Your task to perform on an android device: turn off improve location accuracy Image 0: 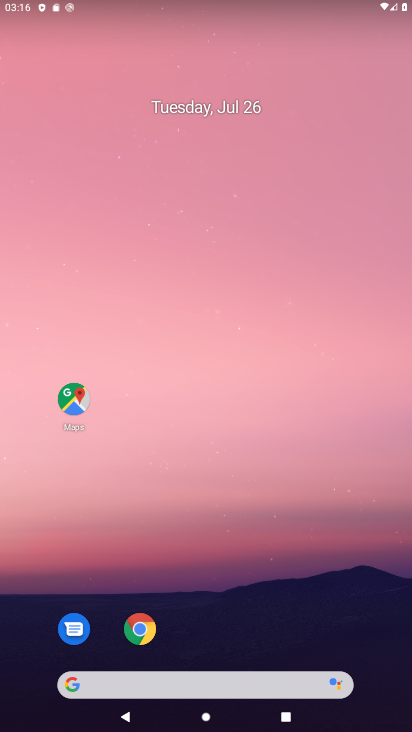
Step 0: drag from (257, 589) to (244, 31)
Your task to perform on an android device: turn off improve location accuracy Image 1: 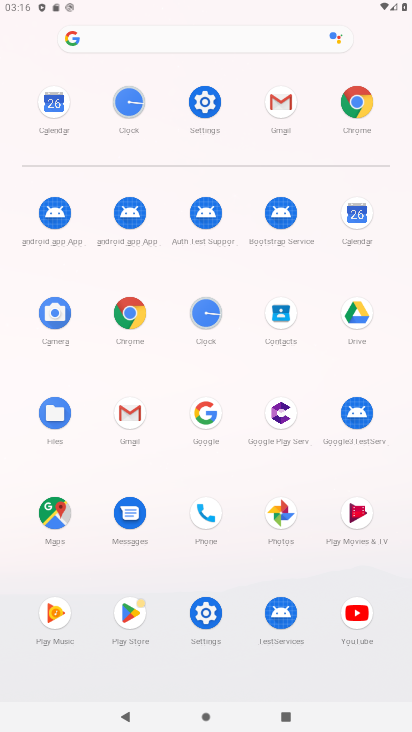
Step 1: click (54, 515)
Your task to perform on an android device: turn off improve location accuracy Image 2: 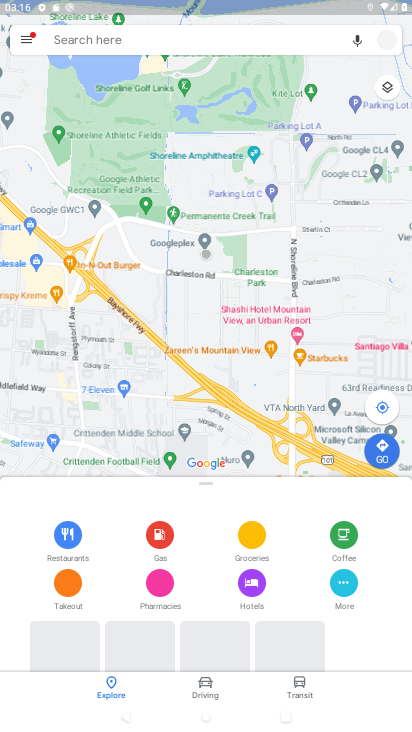
Step 2: click (30, 40)
Your task to perform on an android device: turn off improve location accuracy Image 3: 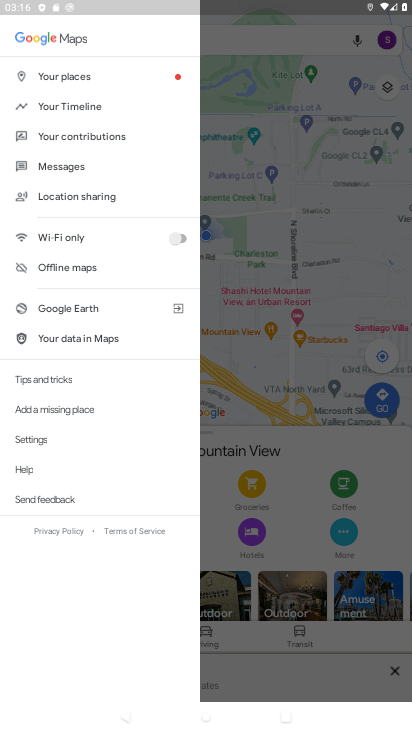
Step 3: press home button
Your task to perform on an android device: turn off improve location accuracy Image 4: 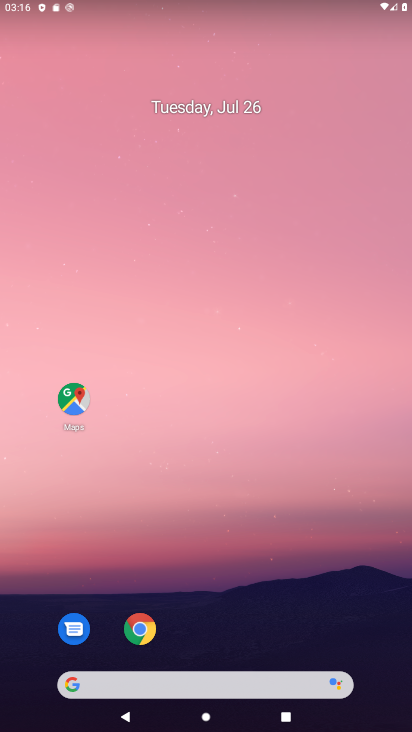
Step 4: drag from (307, 639) to (307, 50)
Your task to perform on an android device: turn off improve location accuracy Image 5: 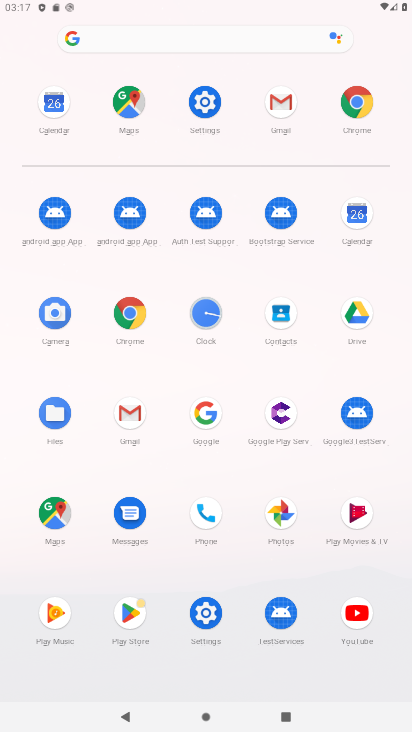
Step 5: click (199, 613)
Your task to perform on an android device: turn off improve location accuracy Image 6: 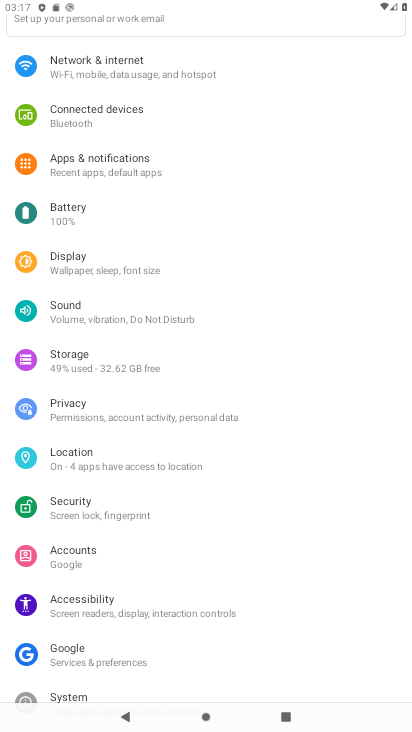
Step 6: drag from (177, 639) to (149, 258)
Your task to perform on an android device: turn off improve location accuracy Image 7: 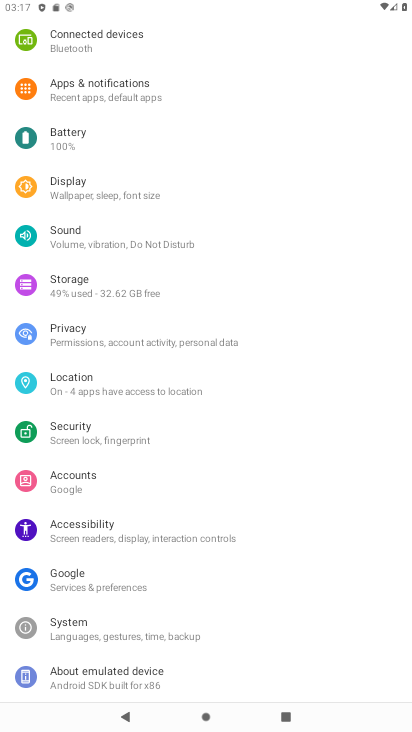
Step 7: click (80, 383)
Your task to perform on an android device: turn off improve location accuracy Image 8: 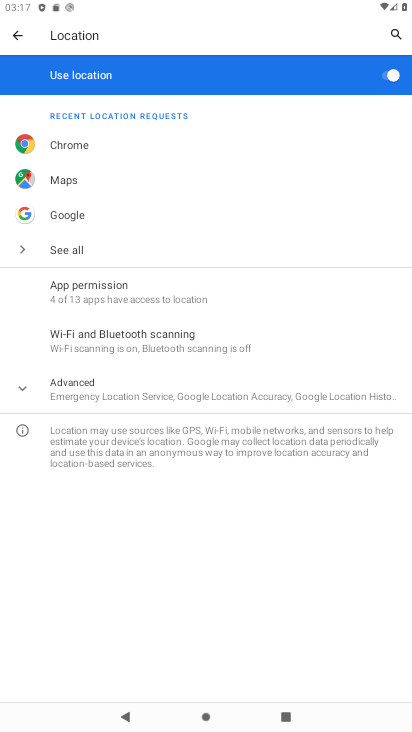
Step 8: click (203, 392)
Your task to perform on an android device: turn off improve location accuracy Image 9: 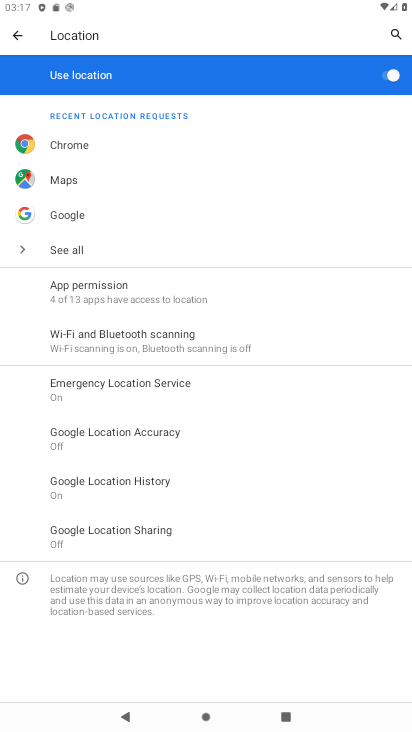
Step 9: click (145, 431)
Your task to perform on an android device: turn off improve location accuracy Image 10: 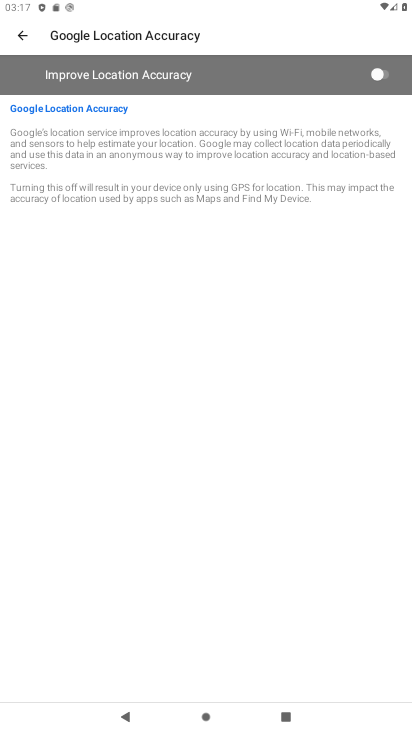
Step 10: task complete